Your task to perform on an android device: Turn on the flashlight Image 0: 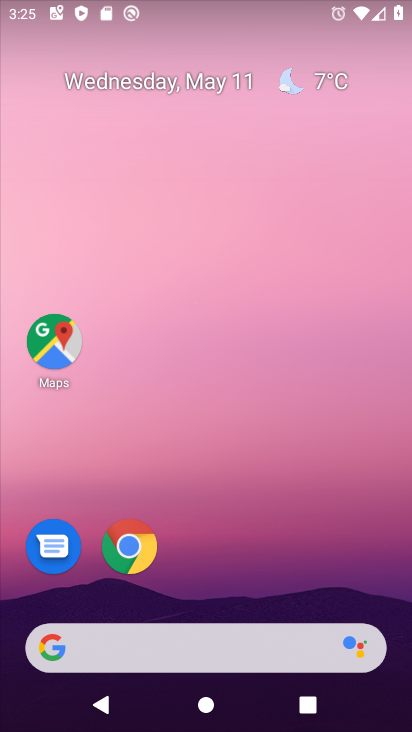
Step 0: drag from (300, 0) to (308, 632)
Your task to perform on an android device: Turn on the flashlight Image 1: 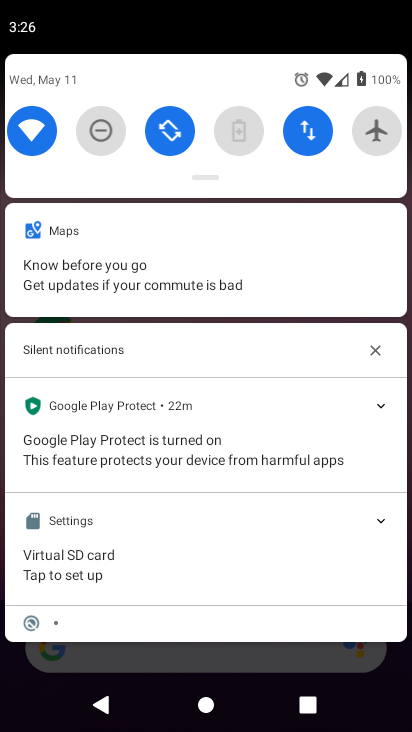
Step 1: drag from (258, 683) to (259, 93)
Your task to perform on an android device: Turn on the flashlight Image 2: 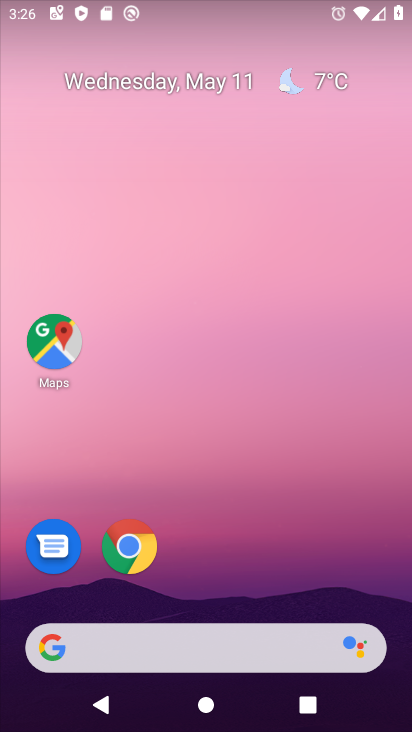
Step 2: drag from (207, 663) to (277, 88)
Your task to perform on an android device: Turn on the flashlight Image 3: 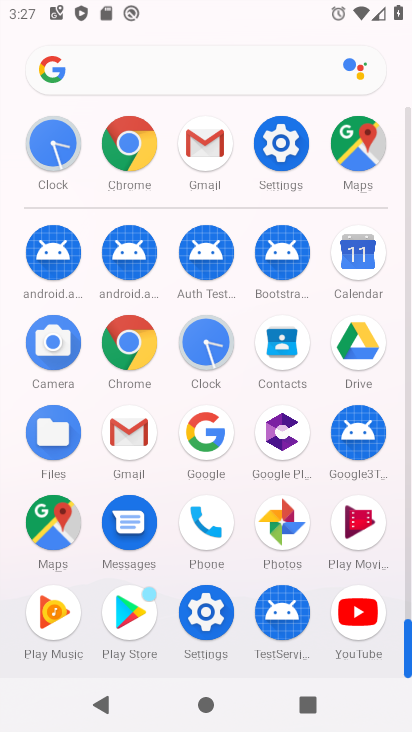
Step 3: click (273, 155)
Your task to perform on an android device: Turn on the flashlight Image 4: 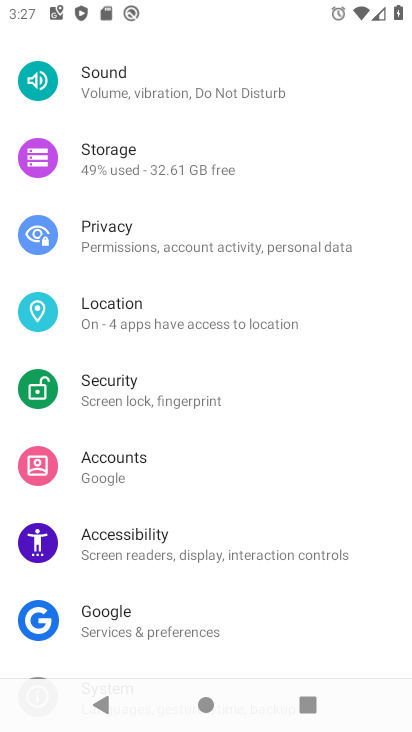
Step 4: task complete